Your task to perform on an android device: Play the last video I watched on Youtube Image 0: 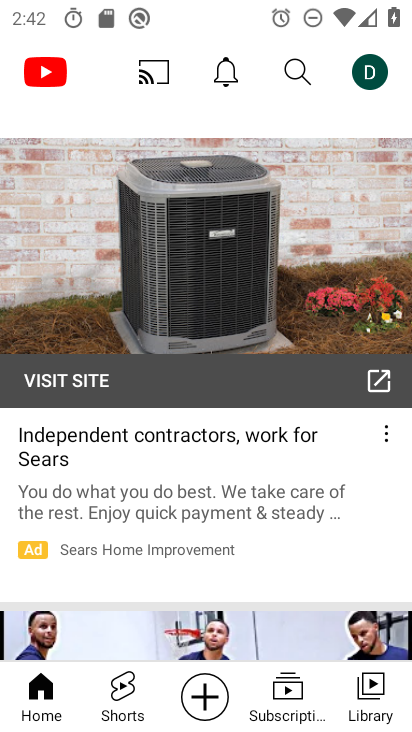
Step 0: click (361, 693)
Your task to perform on an android device: Play the last video I watched on Youtube Image 1: 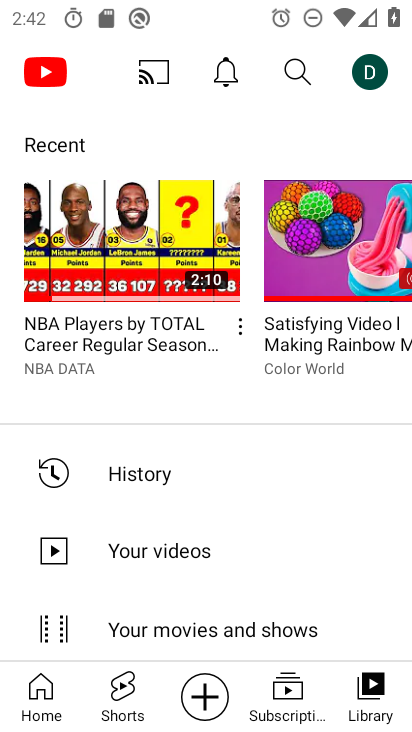
Step 1: click (142, 239)
Your task to perform on an android device: Play the last video I watched on Youtube Image 2: 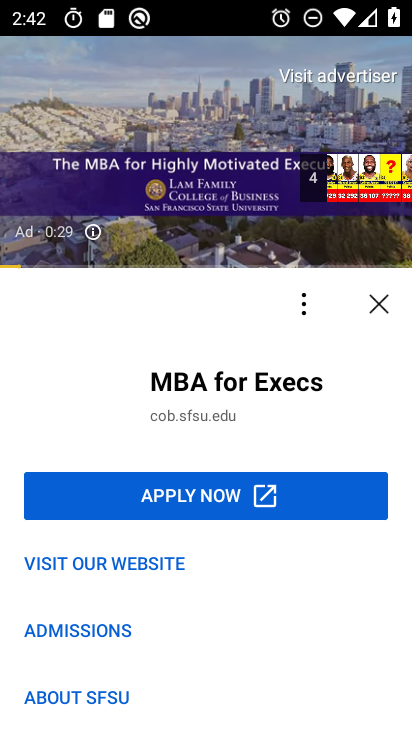
Step 2: task complete